Your task to perform on an android device: snooze an email in the gmail app Image 0: 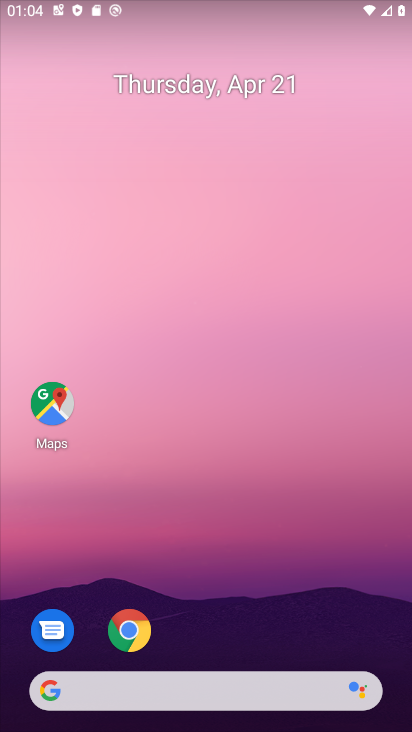
Step 0: drag from (265, 607) to (242, 231)
Your task to perform on an android device: snooze an email in the gmail app Image 1: 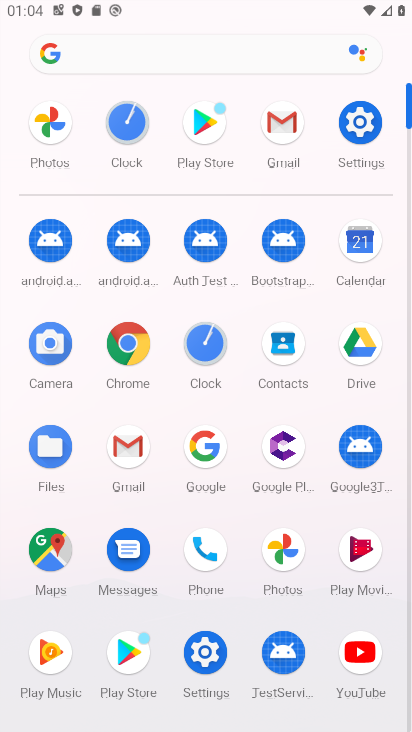
Step 1: click (126, 479)
Your task to perform on an android device: snooze an email in the gmail app Image 2: 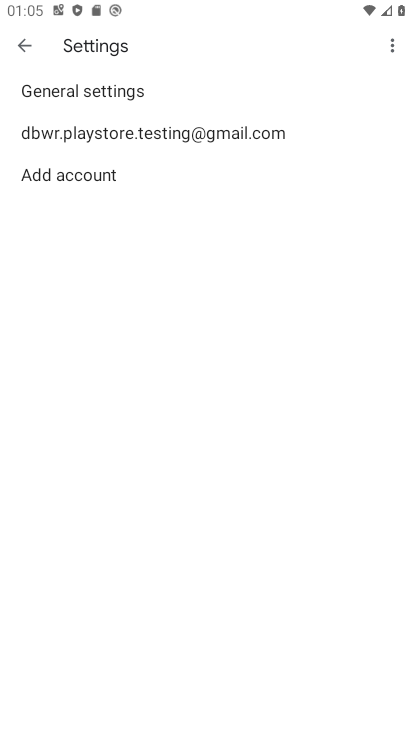
Step 2: click (25, 56)
Your task to perform on an android device: snooze an email in the gmail app Image 3: 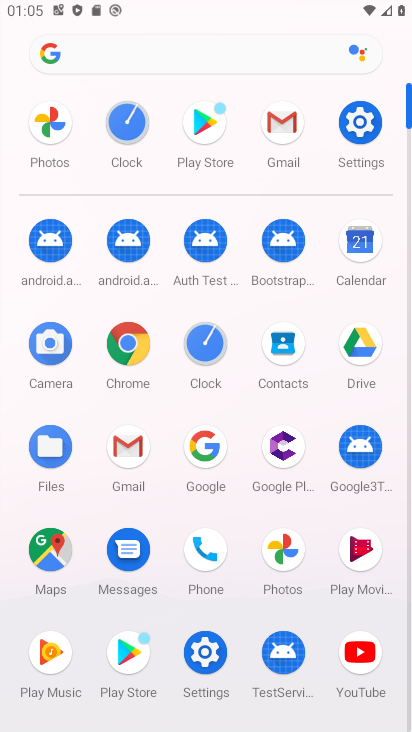
Step 3: click (143, 440)
Your task to perform on an android device: snooze an email in the gmail app Image 4: 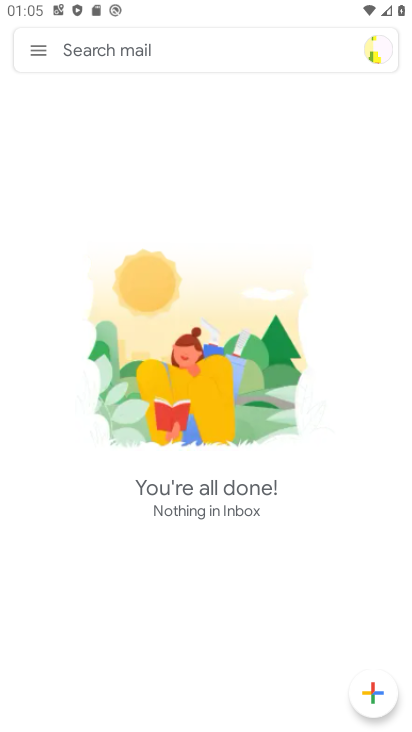
Step 4: click (32, 62)
Your task to perform on an android device: snooze an email in the gmail app Image 5: 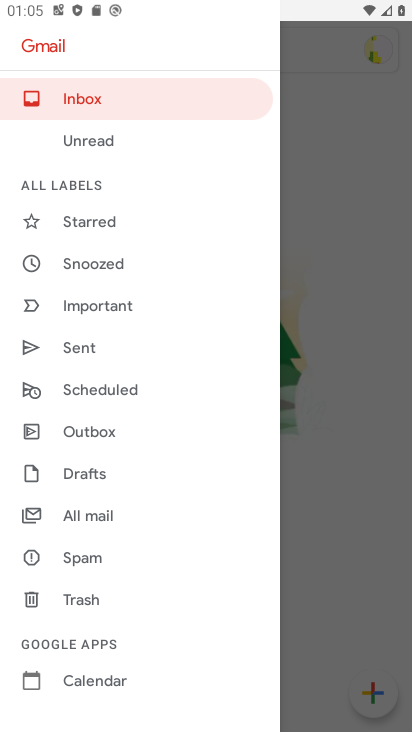
Step 5: click (113, 500)
Your task to perform on an android device: snooze an email in the gmail app Image 6: 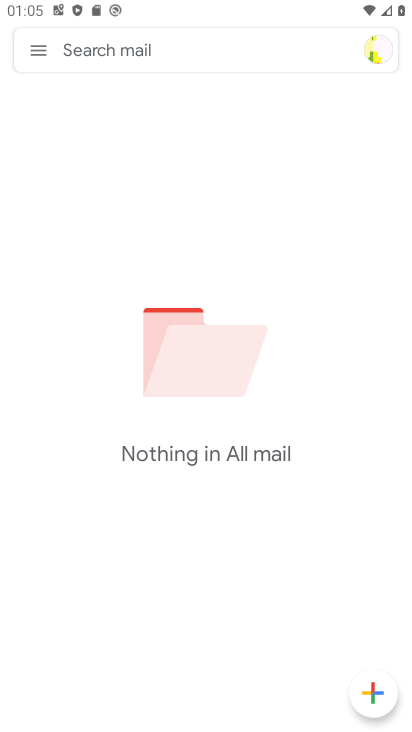
Step 6: task complete